Your task to perform on an android device: allow cookies in the chrome app Image 0: 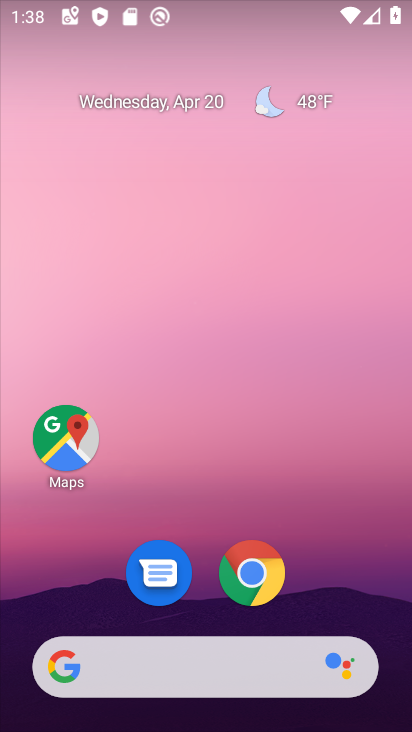
Step 0: drag from (206, 665) to (295, 159)
Your task to perform on an android device: allow cookies in the chrome app Image 1: 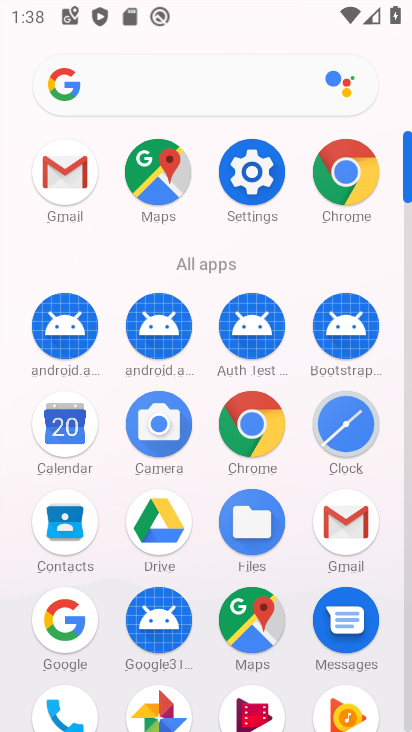
Step 1: click (344, 182)
Your task to perform on an android device: allow cookies in the chrome app Image 2: 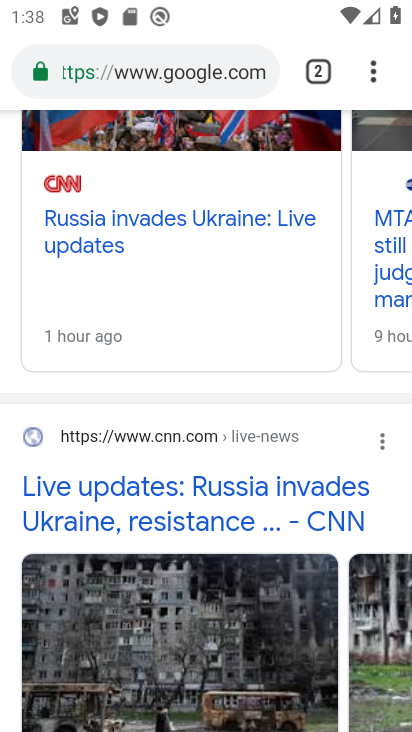
Step 2: click (372, 76)
Your task to perform on an android device: allow cookies in the chrome app Image 3: 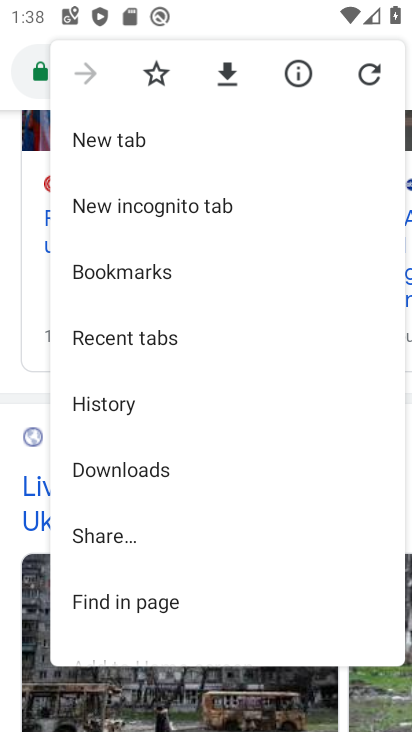
Step 3: drag from (217, 524) to (330, 184)
Your task to perform on an android device: allow cookies in the chrome app Image 4: 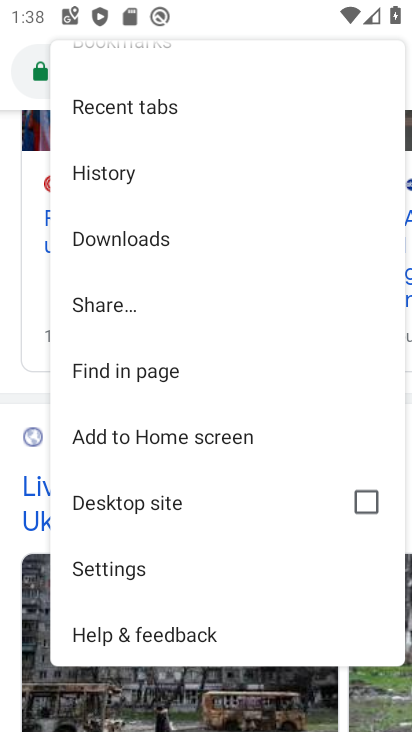
Step 4: click (144, 570)
Your task to perform on an android device: allow cookies in the chrome app Image 5: 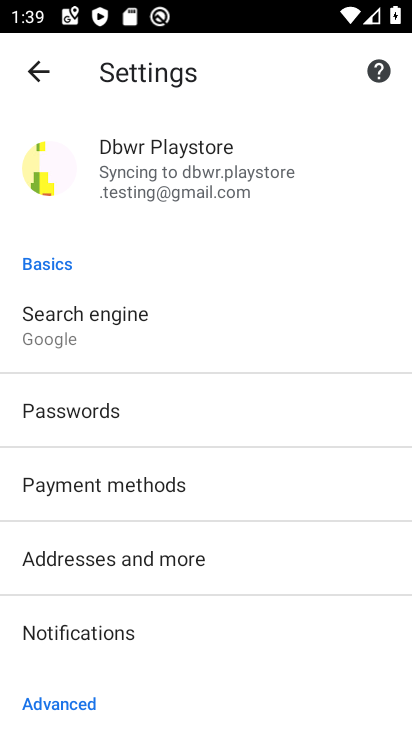
Step 5: drag from (205, 575) to (355, 116)
Your task to perform on an android device: allow cookies in the chrome app Image 6: 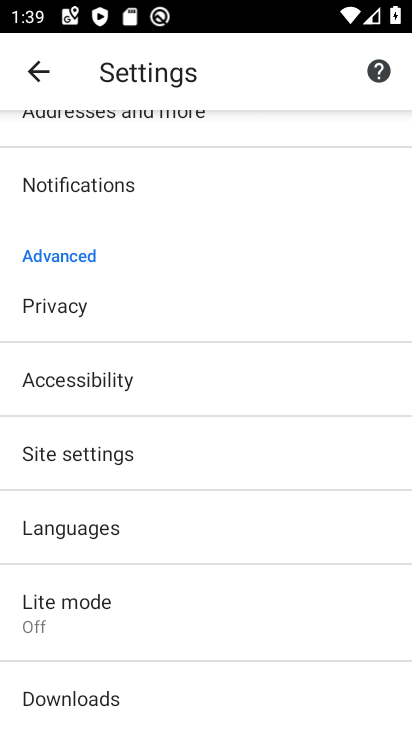
Step 6: click (115, 461)
Your task to perform on an android device: allow cookies in the chrome app Image 7: 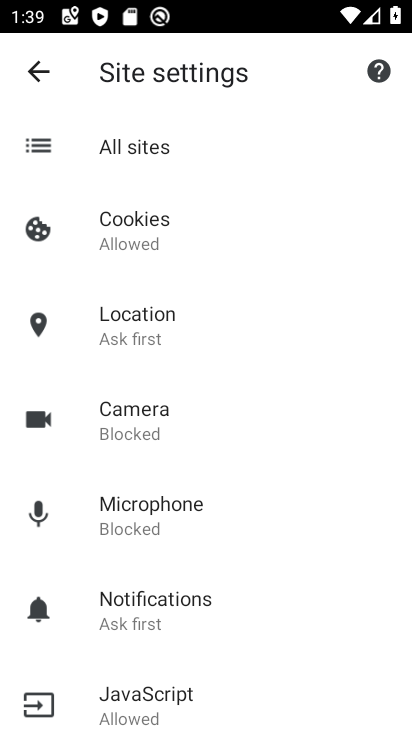
Step 7: click (164, 239)
Your task to perform on an android device: allow cookies in the chrome app Image 8: 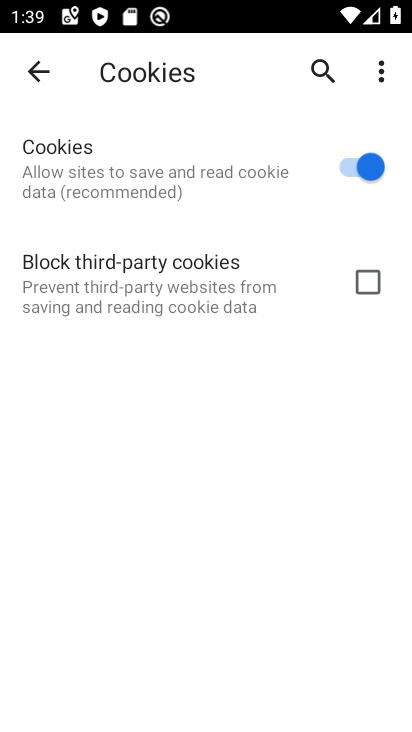
Step 8: task complete